Your task to perform on an android device: turn vacation reply on in the gmail app Image 0: 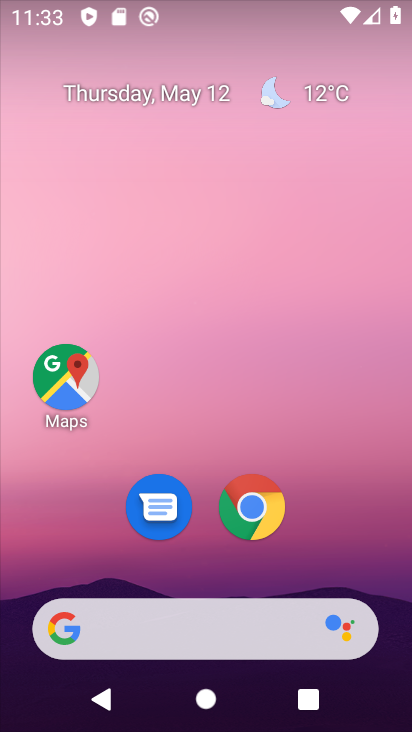
Step 0: drag from (333, 528) to (310, 121)
Your task to perform on an android device: turn vacation reply on in the gmail app Image 1: 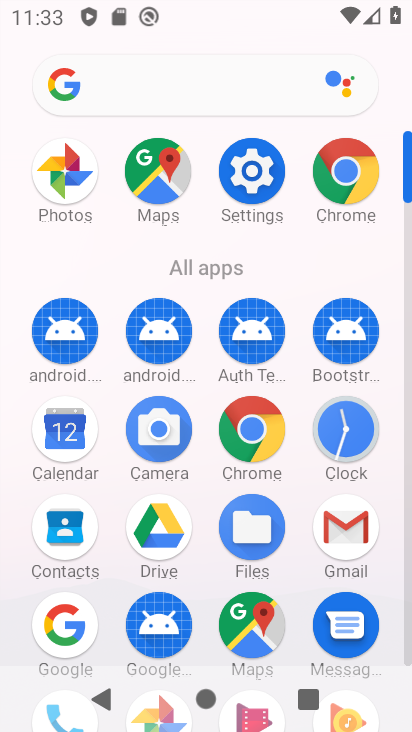
Step 1: click (342, 544)
Your task to perform on an android device: turn vacation reply on in the gmail app Image 2: 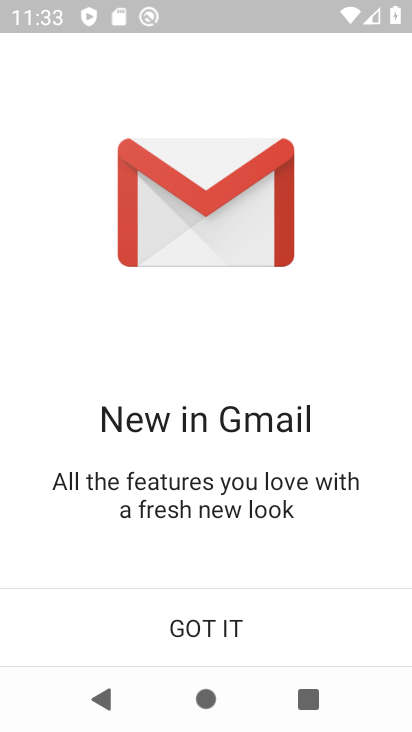
Step 2: click (181, 605)
Your task to perform on an android device: turn vacation reply on in the gmail app Image 3: 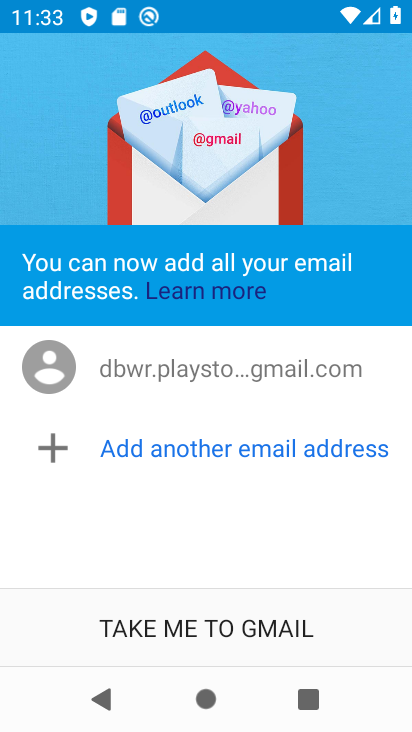
Step 3: click (218, 633)
Your task to perform on an android device: turn vacation reply on in the gmail app Image 4: 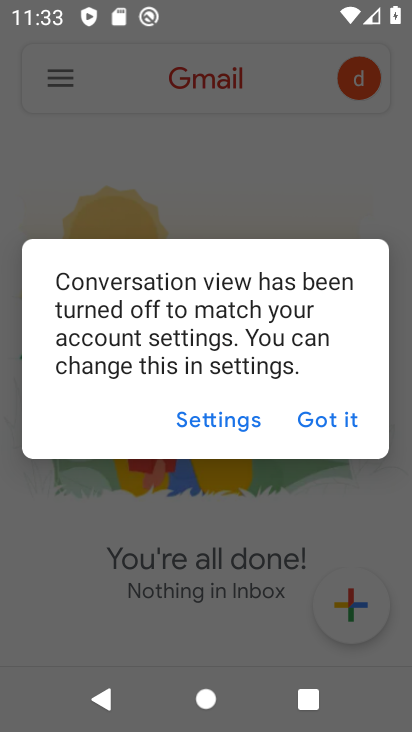
Step 4: click (339, 425)
Your task to perform on an android device: turn vacation reply on in the gmail app Image 5: 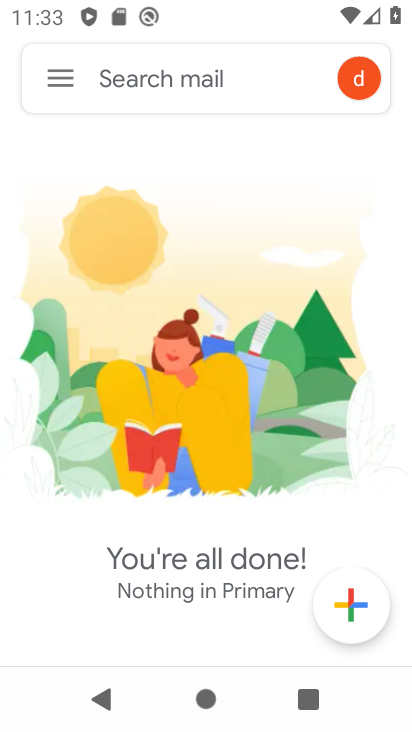
Step 5: click (61, 80)
Your task to perform on an android device: turn vacation reply on in the gmail app Image 6: 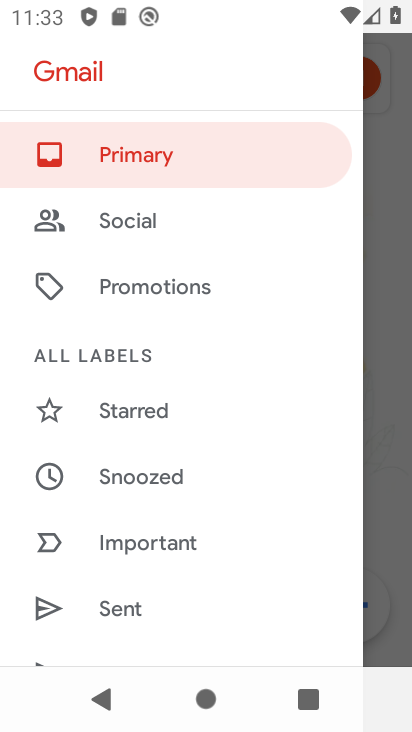
Step 6: drag from (204, 551) to (206, 176)
Your task to perform on an android device: turn vacation reply on in the gmail app Image 7: 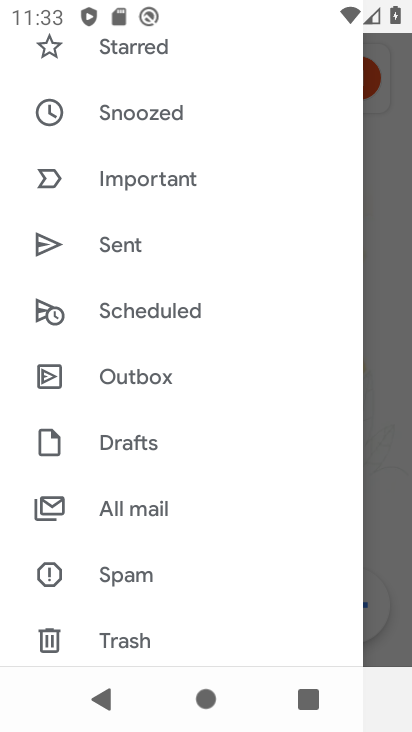
Step 7: drag from (182, 561) to (215, 160)
Your task to perform on an android device: turn vacation reply on in the gmail app Image 8: 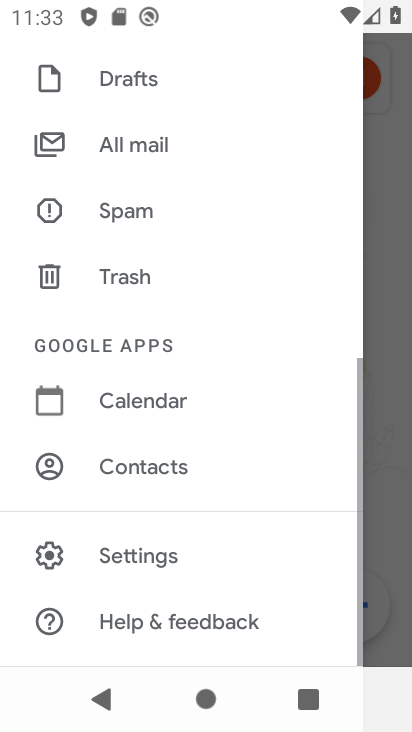
Step 8: click (148, 563)
Your task to perform on an android device: turn vacation reply on in the gmail app Image 9: 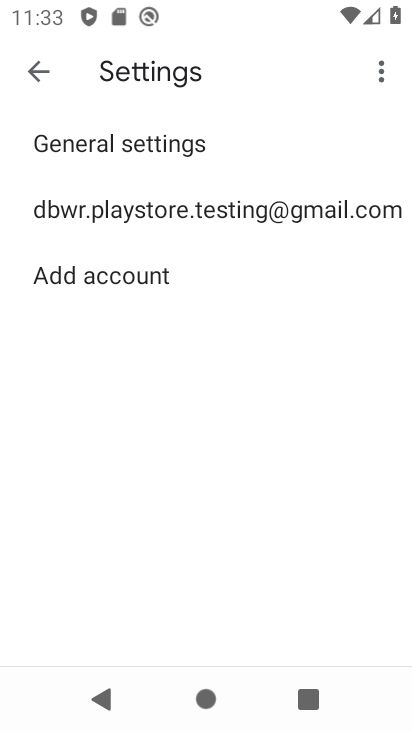
Step 9: click (120, 213)
Your task to perform on an android device: turn vacation reply on in the gmail app Image 10: 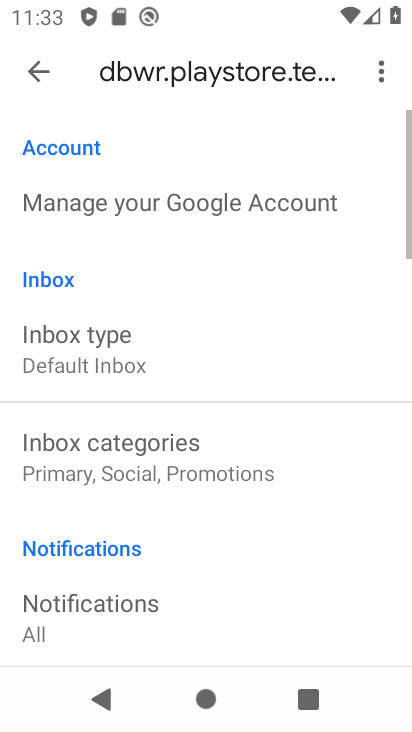
Step 10: drag from (152, 605) to (152, 192)
Your task to perform on an android device: turn vacation reply on in the gmail app Image 11: 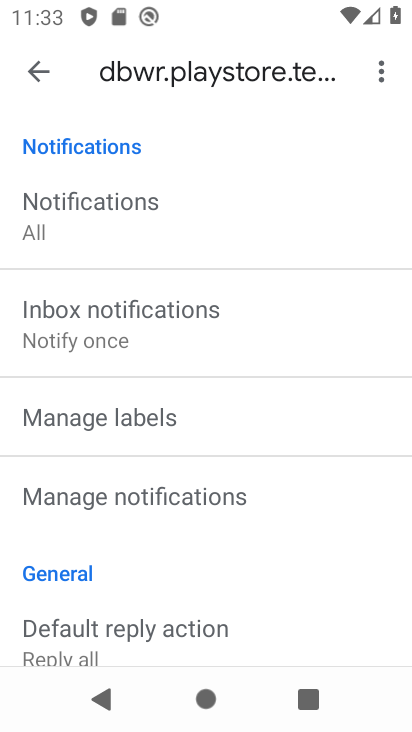
Step 11: drag from (156, 593) to (162, 127)
Your task to perform on an android device: turn vacation reply on in the gmail app Image 12: 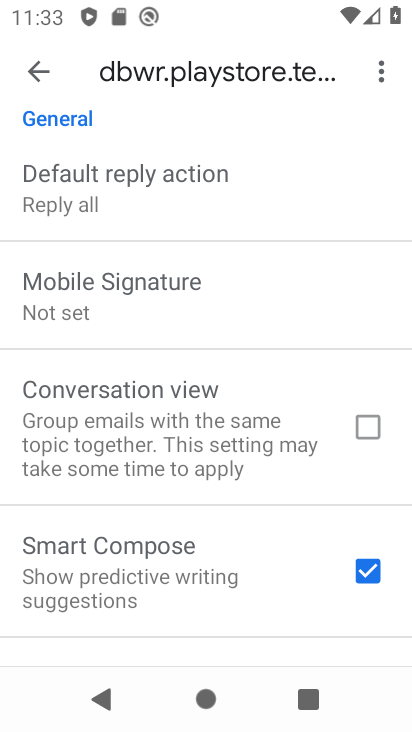
Step 12: drag from (154, 617) to (180, 265)
Your task to perform on an android device: turn vacation reply on in the gmail app Image 13: 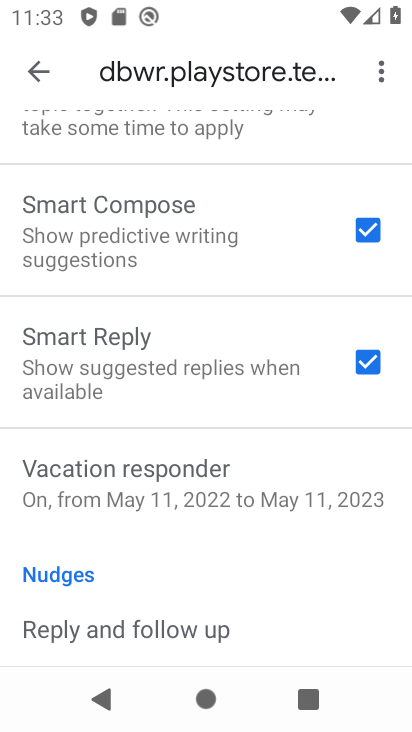
Step 13: click (198, 490)
Your task to perform on an android device: turn vacation reply on in the gmail app Image 14: 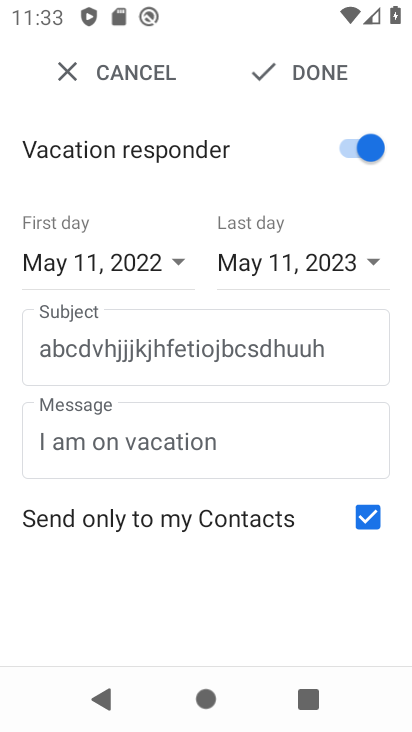
Step 14: task complete